Your task to perform on an android device: Turn off the flashlight Image 0: 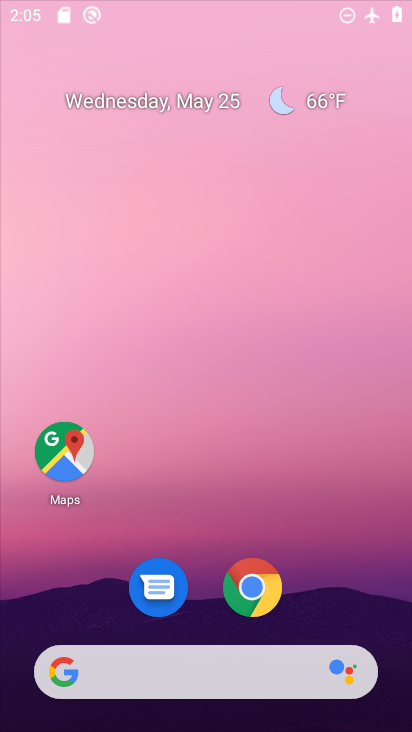
Step 0: press home button
Your task to perform on an android device: Turn off the flashlight Image 1: 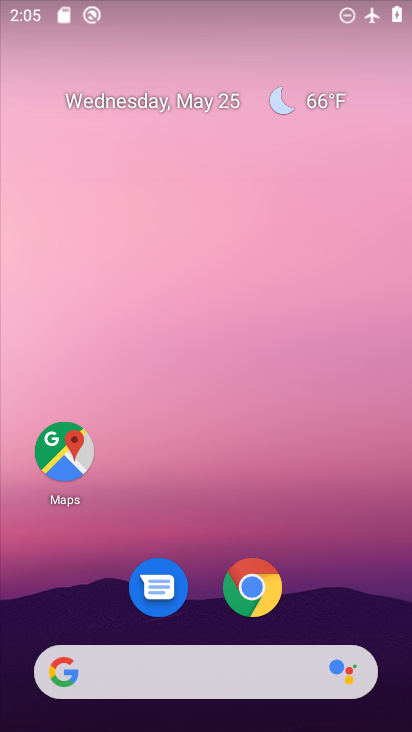
Step 1: drag from (303, 1) to (277, 365)
Your task to perform on an android device: Turn off the flashlight Image 2: 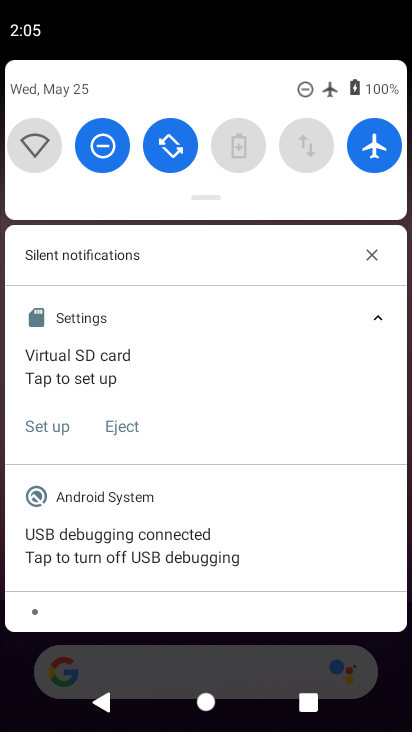
Step 2: drag from (204, 91) to (207, 316)
Your task to perform on an android device: Turn off the flashlight Image 3: 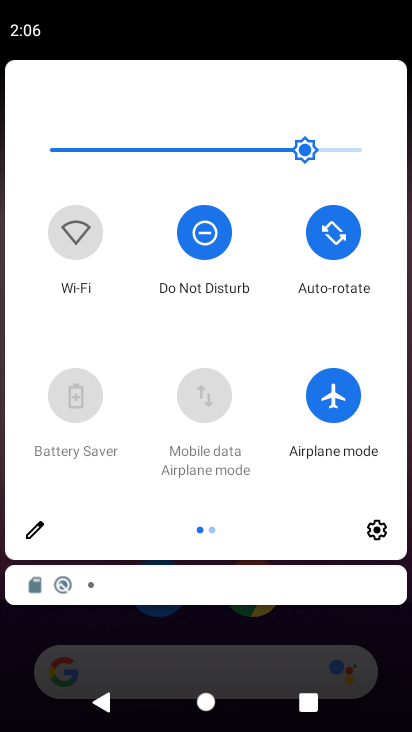
Step 3: click (48, 535)
Your task to perform on an android device: Turn off the flashlight Image 4: 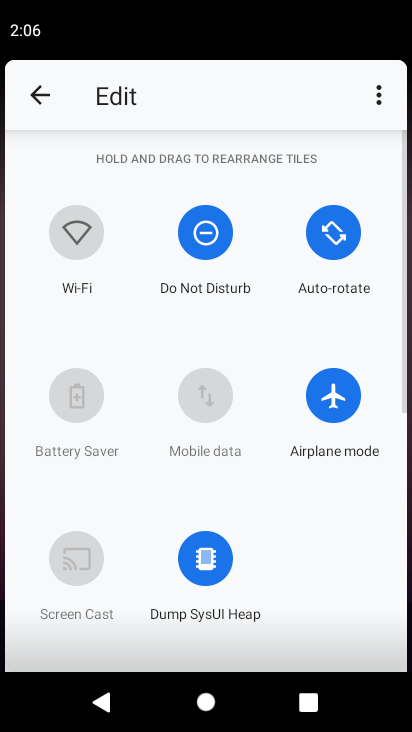
Step 4: task complete